Your task to perform on an android device: add a label to a message in the gmail app Image 0: 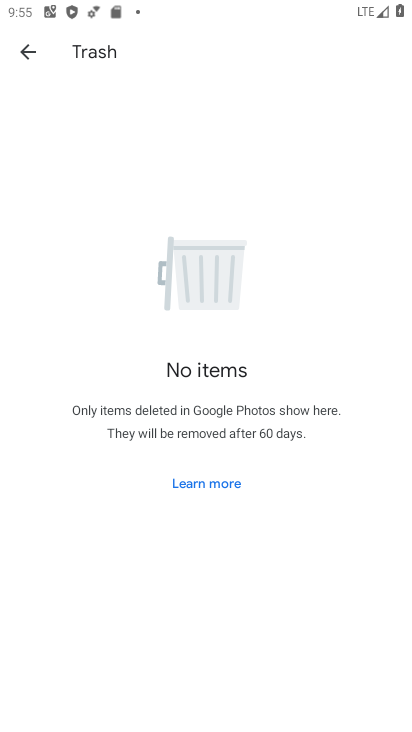
Step 0: press home button
Your task to perform on an android device: add a label to a message in the gmail app Image 1: 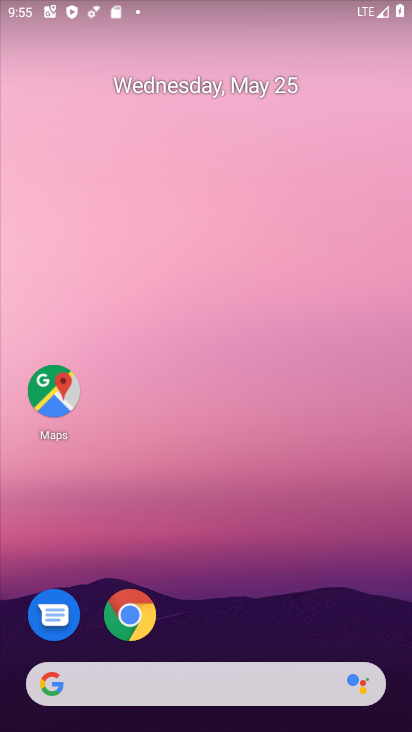
Step 1: drag from (265, 566) to (237, 73)
Your task to perform on an android device: add a label to a message in the gmail app Image 2: 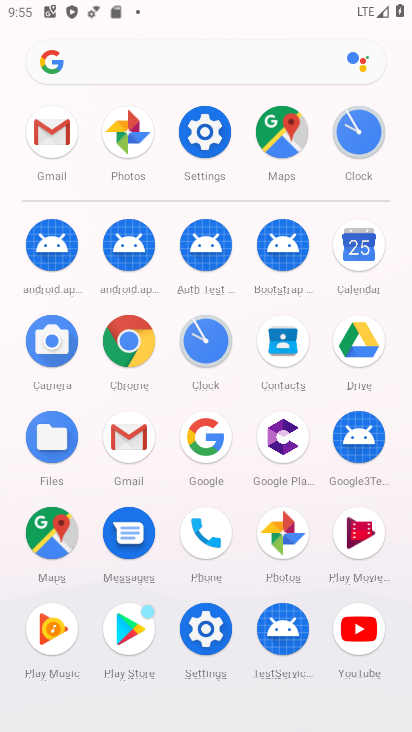
Step 2: click (61, 127)
Your task to perform on an android device: add a label to a message in the gmail app Image 3: 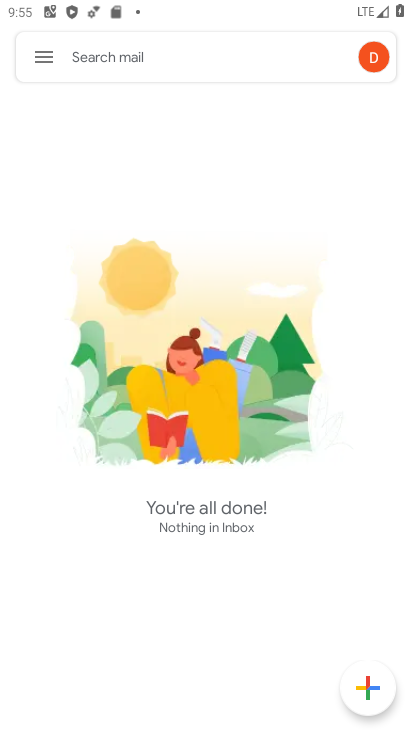
Step 3: click (41, 50)
Your task to perform on an android device: add a label to a message in the gmail app Image 4: 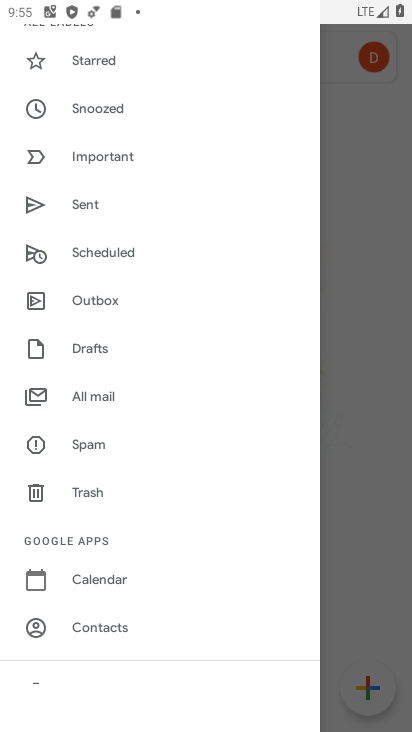
Step 4: click (91, 392)
Your task to perform on an android device: add a label to a message in the gmail app Image 5: 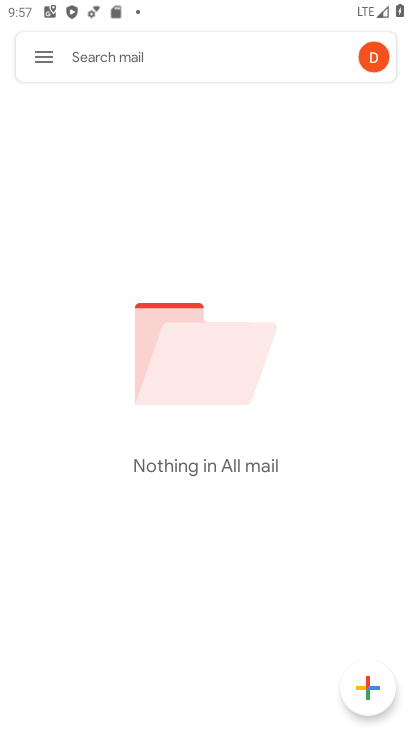
Step 5: task complete